Your task to perform on an android device: Open privacy settings Image 0: 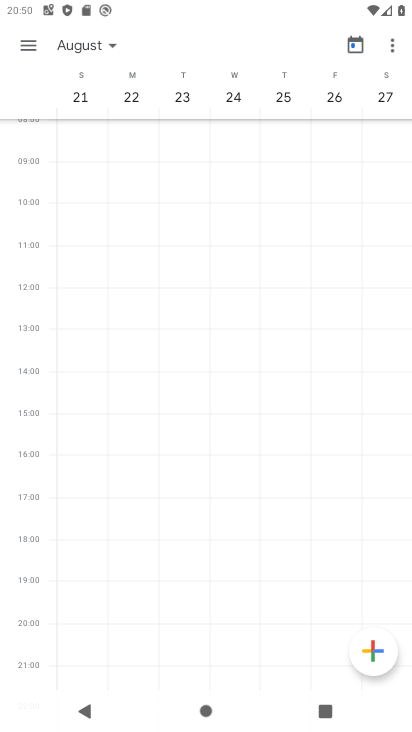
Step 0: press home button
Your task to perform on an android device: Open privacy settings Image 1: 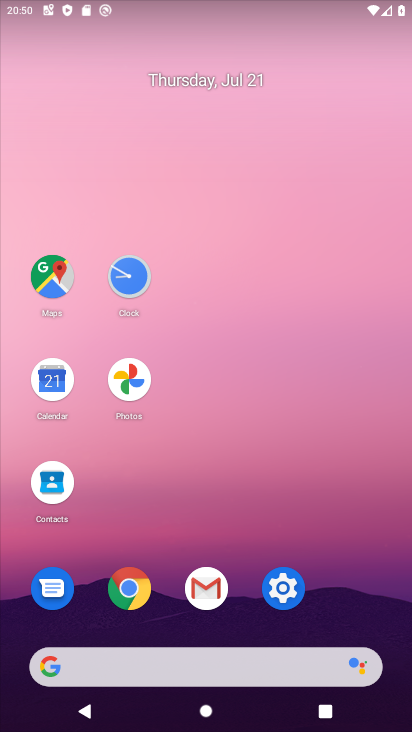
Step 1: click (282, 590)
Your task to perform on an android device: Open privacy settings Image 2: 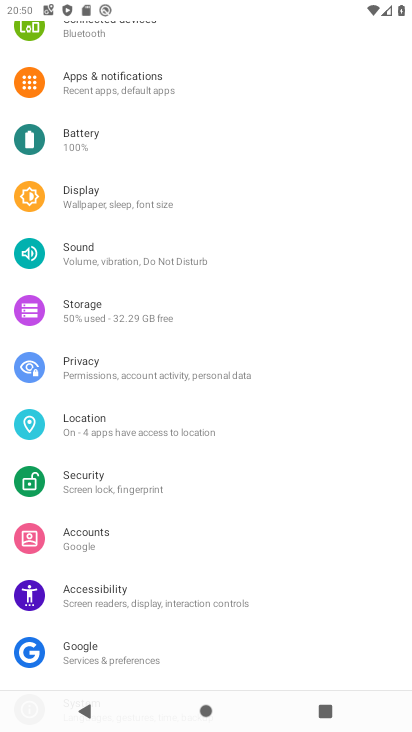
Step 2: click (83, 361)
Your task to perform on an android device: Open privacy settings Image 3: 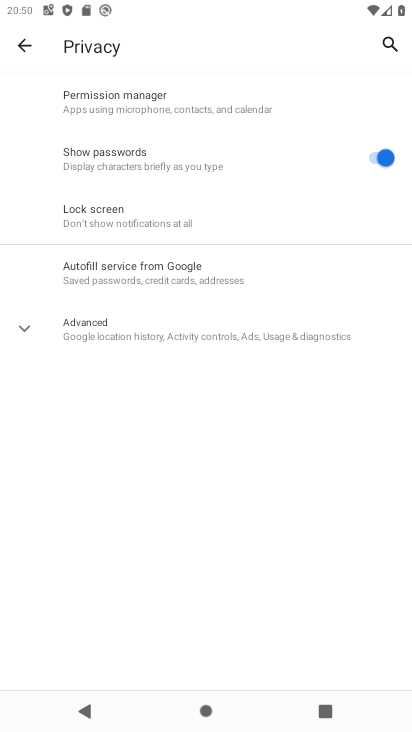
Step 3: task complete